Your task to perform on an android device: Is it going to rain this weekend? Image 0: 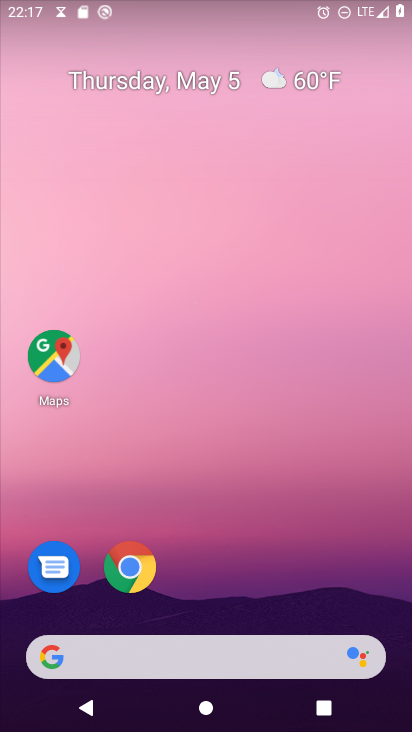
Step 0: click (279, 76)
Your task to perform on an android device: Is it going to rain this weekend? Image 1: 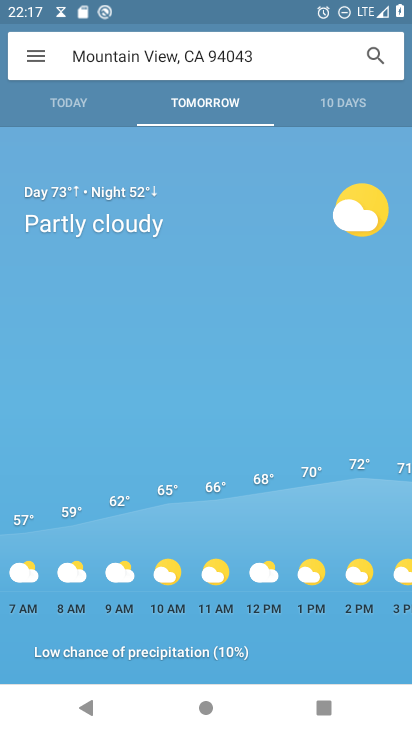
Step 1: click (339, 95)
Your task to perform on an android device: Is it going to rain this weekend? Image 2: 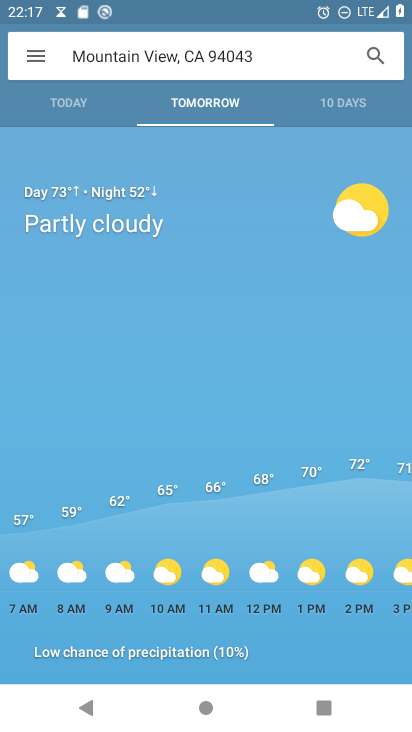
Step 2: click (338, 103)
Your task to perform on an android device: Is it going to rain this weekend? Image 3: 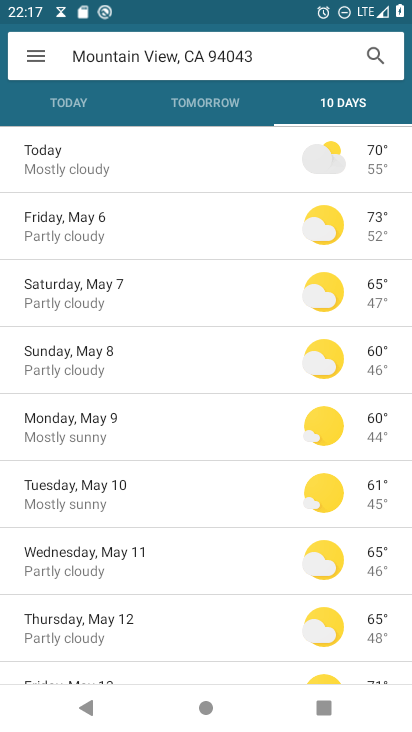
Step 3: click (84, 286)
Your task to perform on an android device: Is it going to rain this weekend? Image 4: 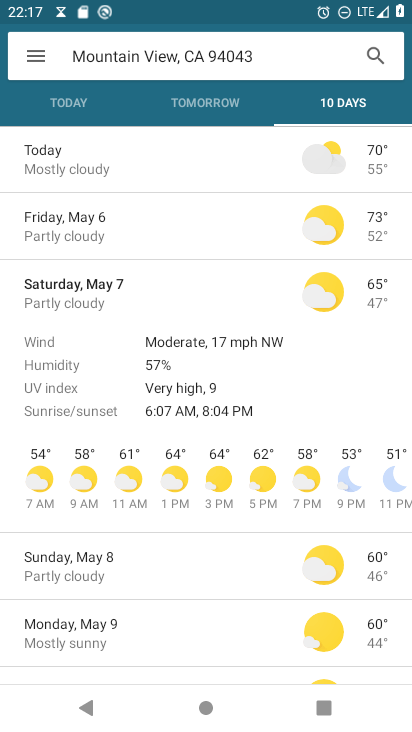
Step 4: task complete